Your task to perform on an android device: clear all cookies in the chrome app Image 0: 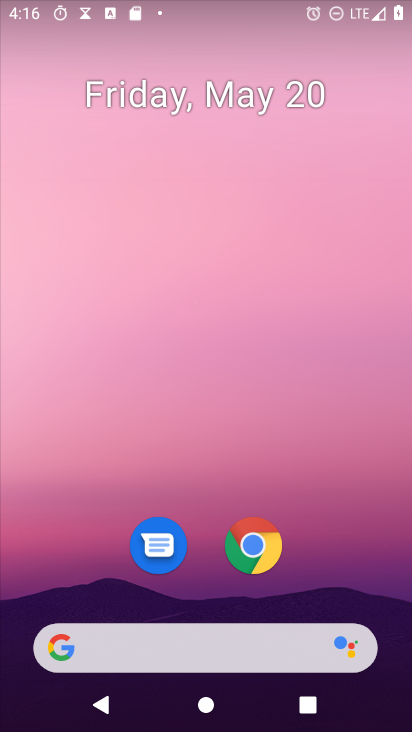
Step 0: drag from (293, 643) to (271, 43)
Your task to perform on an android device: clear all cookies in the chrome app Image 1: 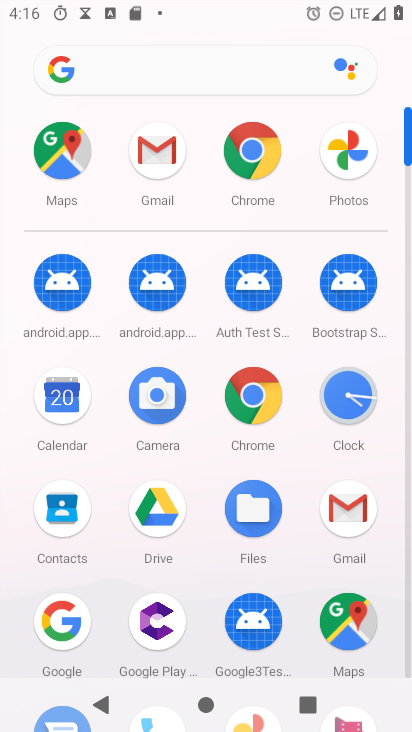
Step 1: click (267, 411)
Your task to perform on an android device: clear all cookies in the chrome app Image 2: 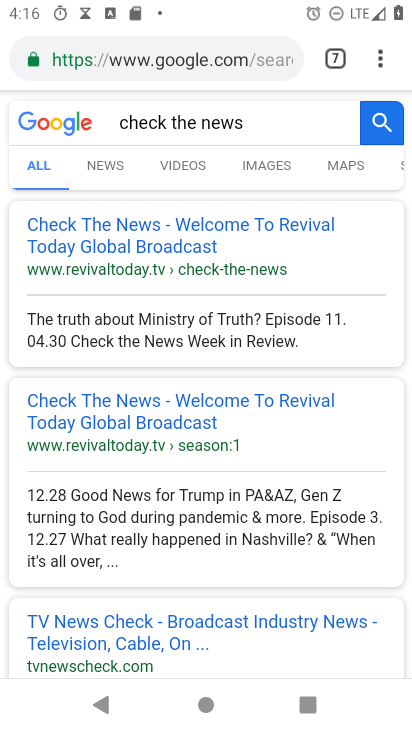
Step 2: drag from (380, 54) to (170, 575)
Your task to perform on an android device: clear all cookies in the chrome app Image 3: 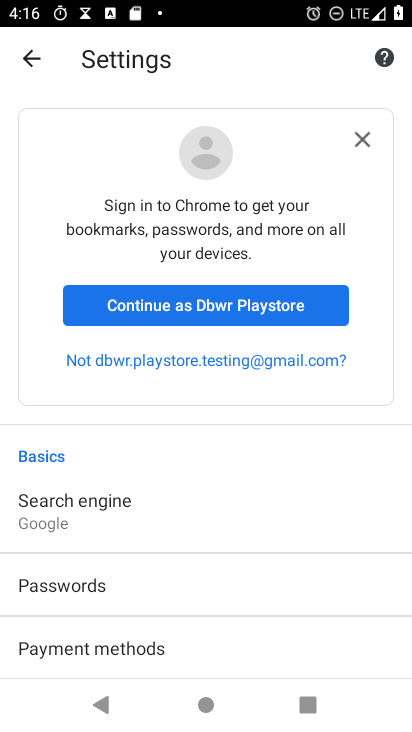
Step 3: drag from (143, 585) to (211, 11)
Your task to perform on an android device: clear all cookies in the chrome app Image 4: 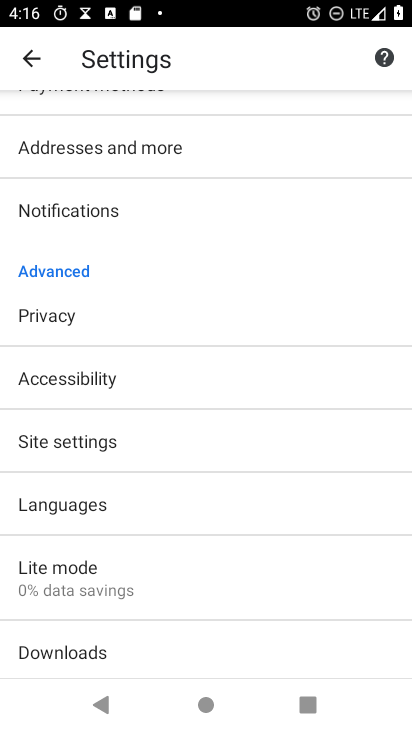
Step 4: click (105, 329)
Your task to perform on an android device: clear all cookies in the chrome app Image 5: 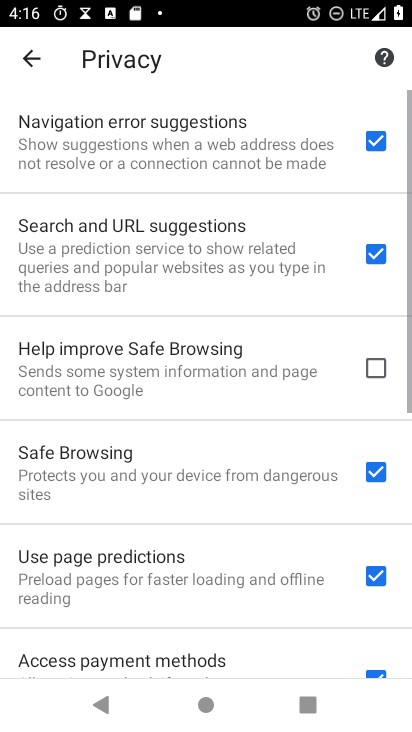
Step 5: drag from (188, 657) to (265, 57)
Your task to perform on an android device: clear all cookies in the chrome app Image 6: 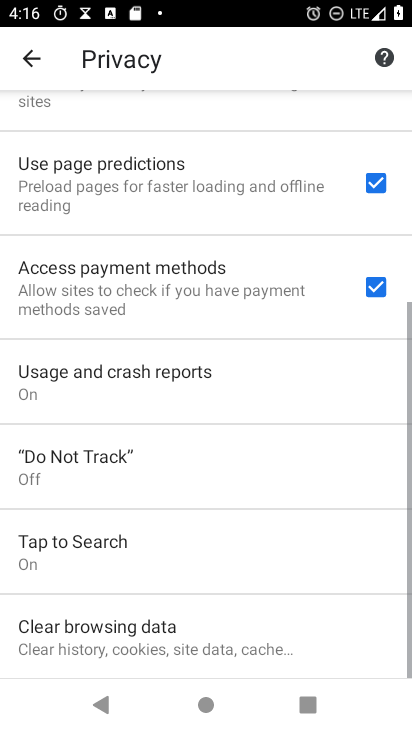
Step 6: click (236, 633)
Your task to perform on an android device: clear all cookies in the chrome app Image 7: 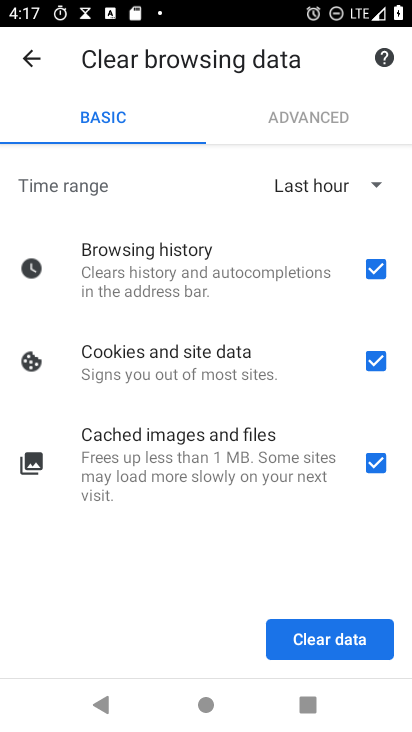
Step 7: click (306, 629)
Your task to perform on an android device: clear all cookies in the chrome app Image 8: 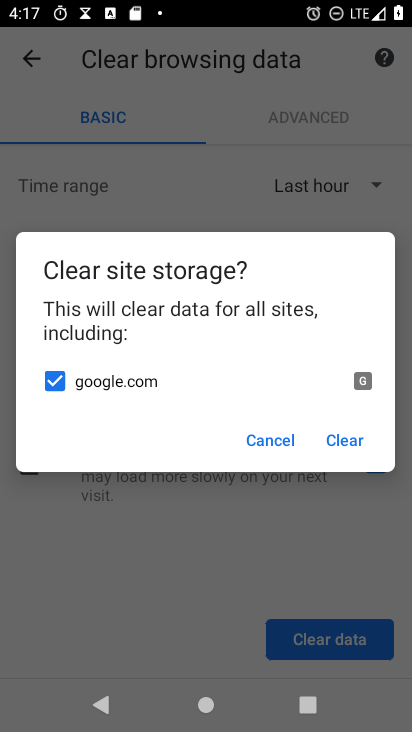
Step 8: click (356, 444)
Your task to perform on an android device: clear all cookies in the chrome app Image 9: 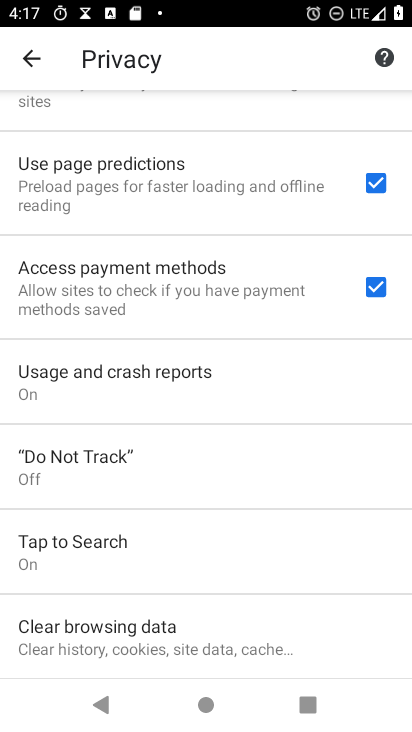
Step 9: task complete